Your task to perform on an android device: turn off sleep mode Image 0: 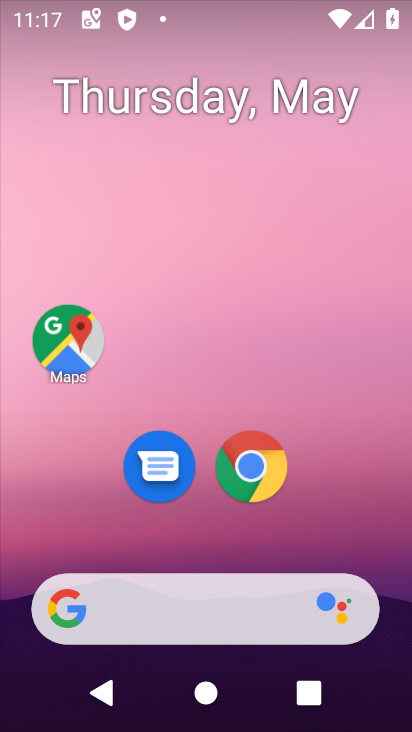
Step 0: drag from (343, 523) to (196, 101)
Your task to perform on an android device: turn off sleep mode Image 1: 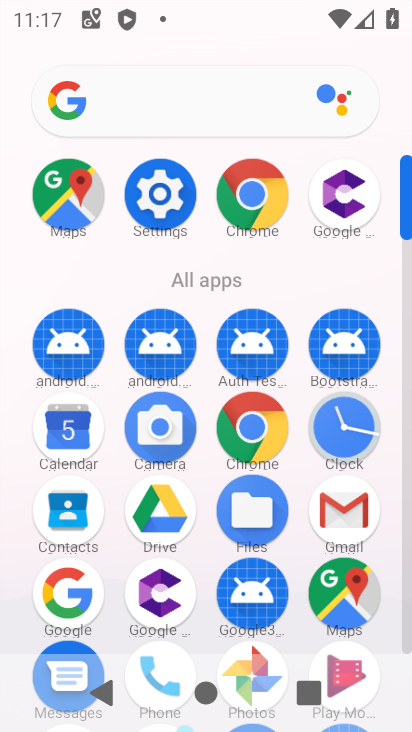
Step 1: click (162, 206)
Your task to perform on an android device: turn off sleep mode Image 2: 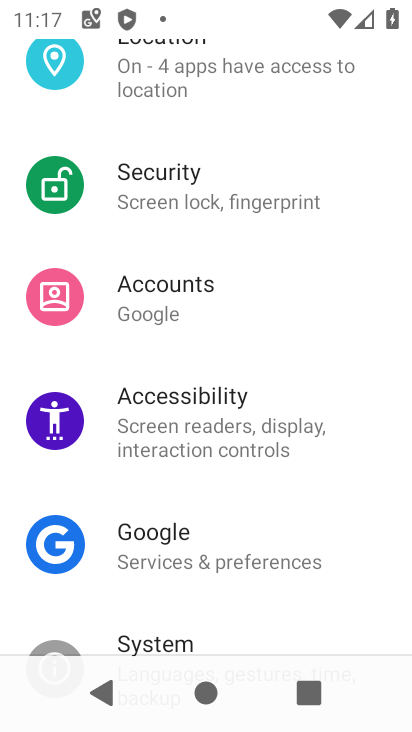
Step 2: drag from (212, 195) to (296, 704)
Your task to perform on an android device: turn off sleep mode Image 3: 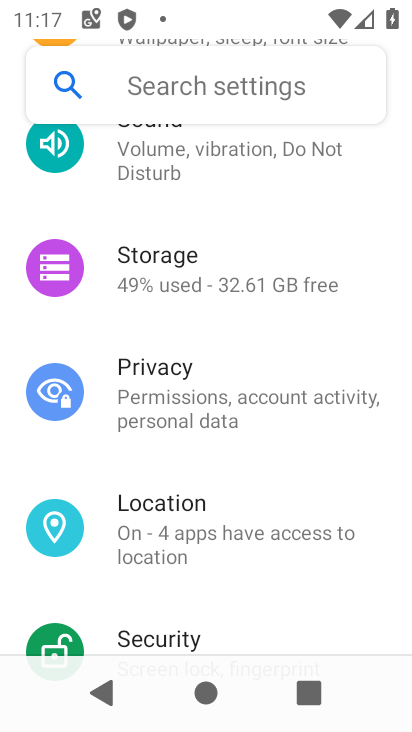
Step 3: drag from (248, 282) to (295, 730)
Your task to perform on an android device: turn off sleep mode Image 4: 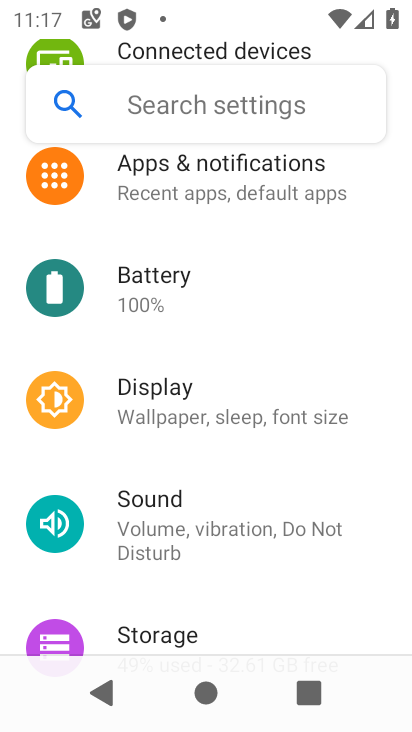
Step 4: drag from (277, 278) to (318, 728)
Your task to perform on an android device: turn off sleep mode Image 5: 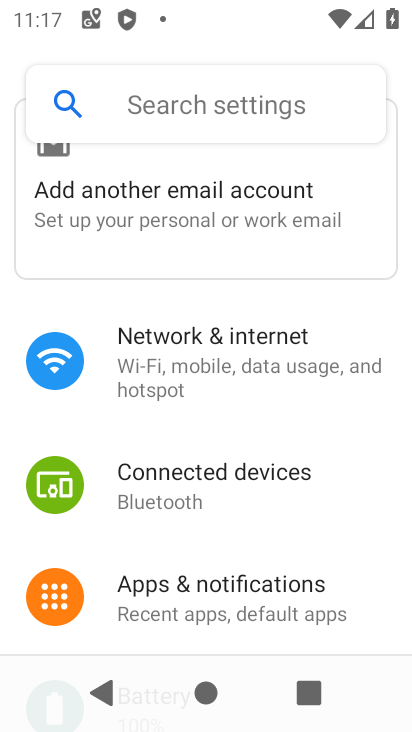
Step 5: drag from (226, 364) to (247, 692)
Your task to perform on an android device: turn off sleep mode Image 6: 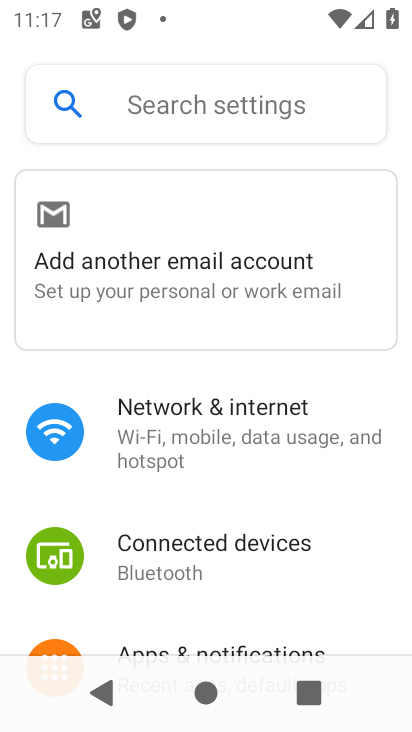
Step 6: click (206, 441)
Your task to perform on an android device: turn off sleep mode Image 7: 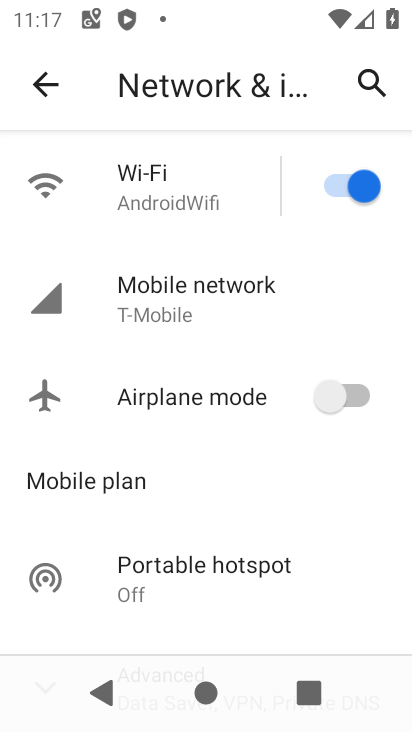
Step 7: task complete